Your task to perform on an android device: Empty the shopping cart on walmart.com. Image 0: 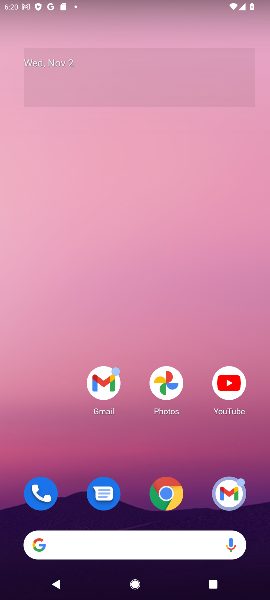
Step 0: drag from (104, 496) to (150, 139)
Your task to perform on an android device: Empty the shopping cart on walmart.com. Image 1: 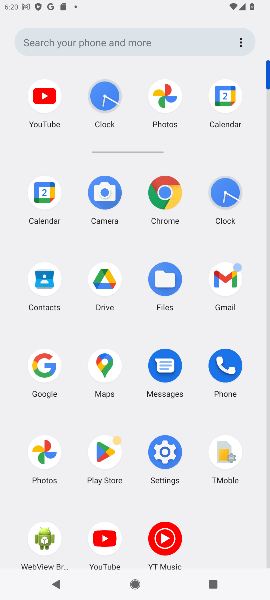
Step 1: click (36, 363)
Your task to perform on an android device: Empty the shopping cart on walmart.com. Image 2: 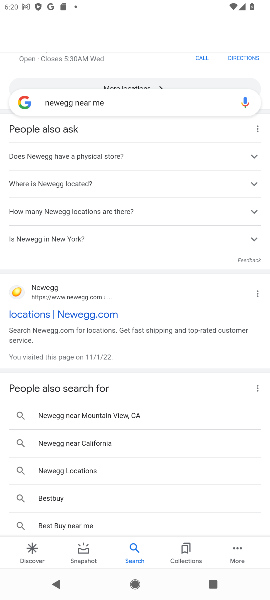
Step 2: click (59, 102)
Your task to perform on an android device: Empty the shopping cart on walmart.com. Image 3: 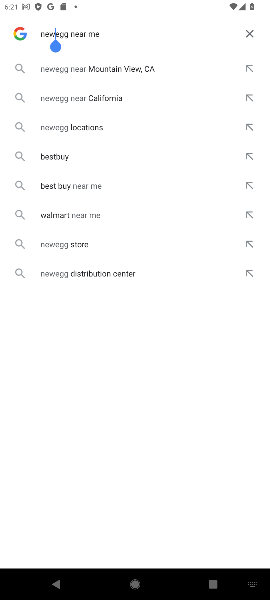
Step 3: click (248, 35)
Your task to perform on an android device: Empty the shopping cart on walmart.com. Image 4: 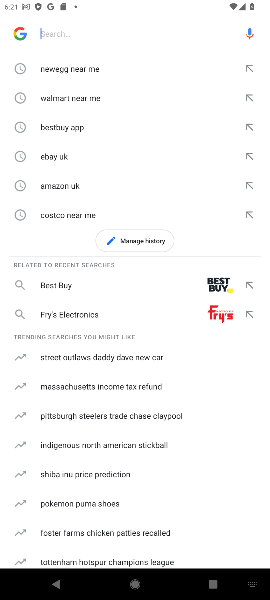
Step 4: click (74, 22)
Your task to perform on an android device: Empty the shopping cart on walmart.com. Image 5: 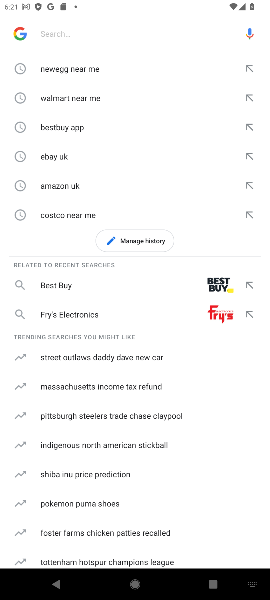
Step 5: click (74, 22)
Your task to perform on an android device: Empty the shopping cart on walmart.com. Image 6: 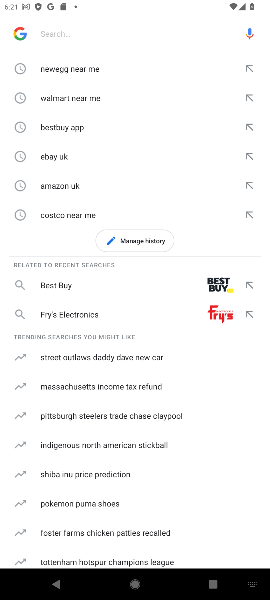
Step 6: type "walmart "
Your task to perform on an android device: Empty the shopping cart on walmart.com. Image 7: 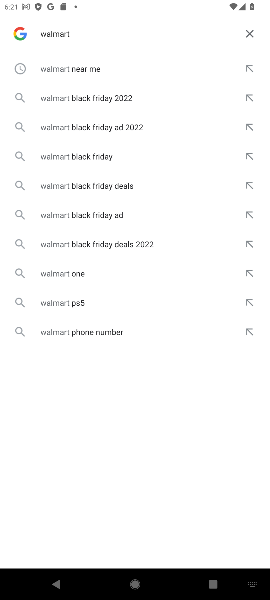
Step 7: click (94, 70)
Your task to perform on an android device: Empty the shopping cart on walmart.com. Image 8: 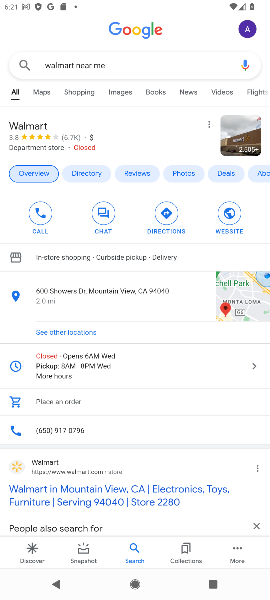
Step 8: click (13, 465)
Your task to perform on an android device: Empty the shopping cart on walmart.com. Image 9: 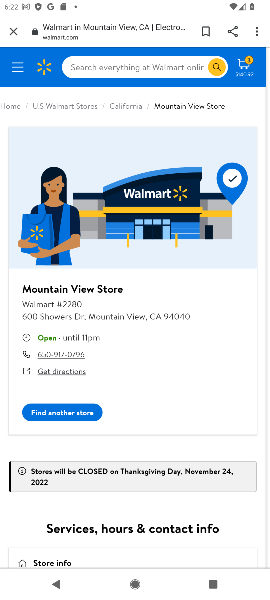
Step 9: click (251, 56)
Your task to perform on an android device: Empty the shopping cart on walmart.com. Image 10: 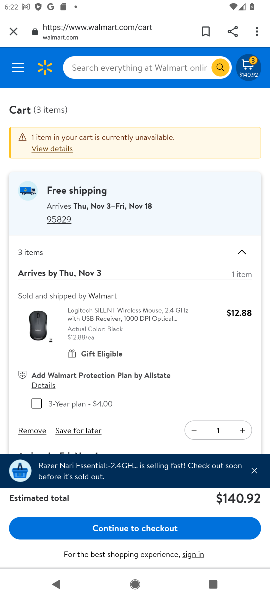
Step 10: click (34, 427)
Your task to perform on an android device: Empty the shopping cart on walmart.com. Image 11: 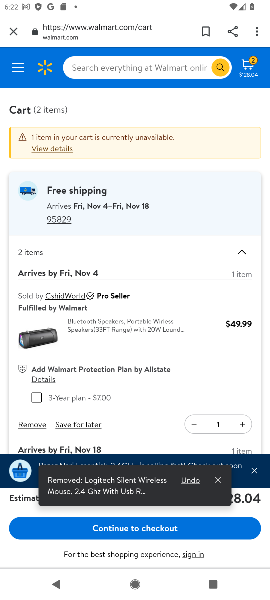
Step 11: click (34, 427)
Your task to perform on an android device: Empty the shopping cart on walmart.com. Image 12: 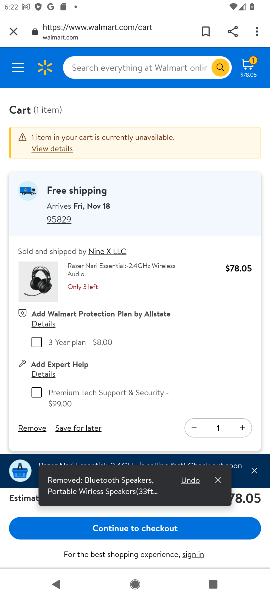
Step 12: click (31, 427)
Your task to perform on an android device: Empty the shopping cart on walmart.com. Image 13: 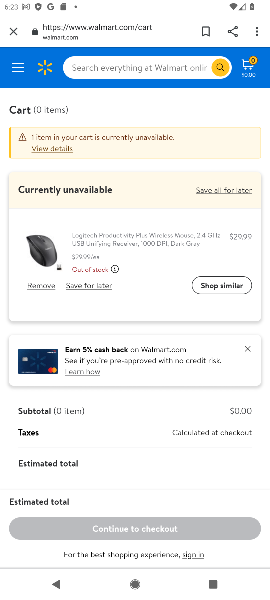
Step 13: task complete